Your task to perform on an android device: What is the recent news? Image 0: 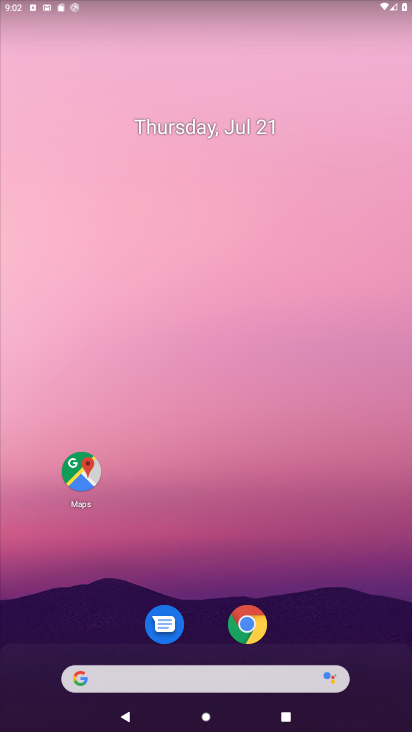
Step 0: click (106, 685)
Your task to perform on an android device: What is the recent news? Image 1: 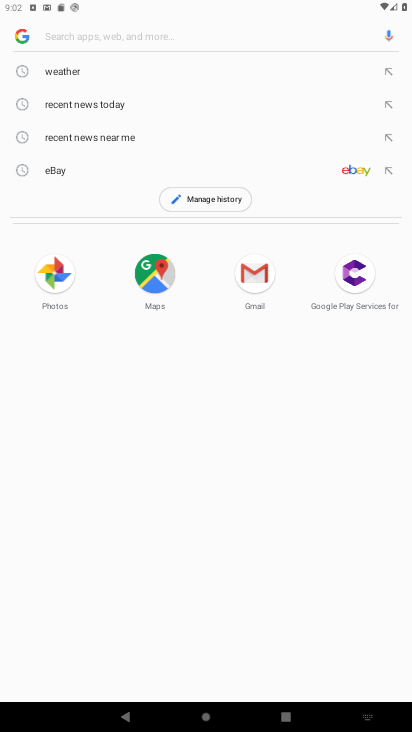
Step 1: click (146, 10)
Your task to perform on an android device: What is the recent news? Image 2: 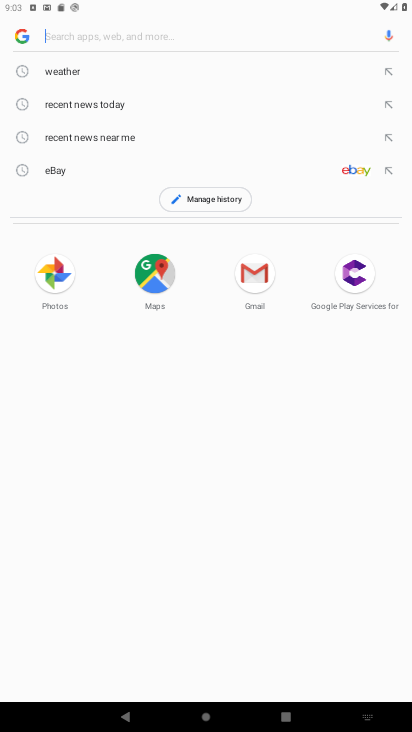
Step 2: type "recent news"
Your task to perform on an android device: What is the recent news? Image 3: 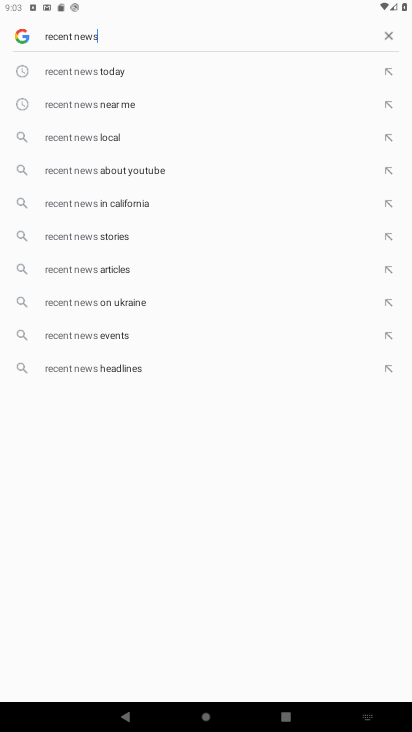
Step 3: click (132, 77)
Your task to perform on an android device: What is the recent news? Image 4: 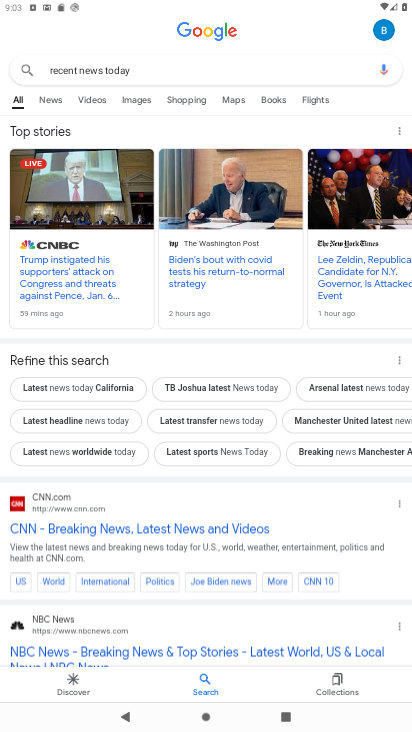
Step 4: task complete